Your task to perform on an android device: Turn off the flashlight Image 0: 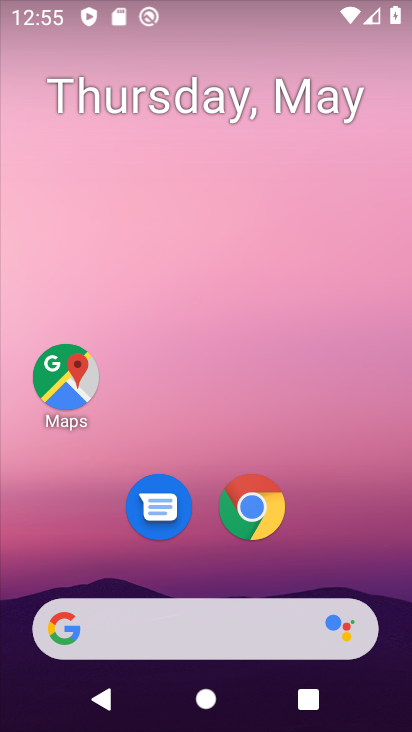
Step 0: drag from (57, 612) to (50, 78)
Your task to perform on an android device: Turn off the flashlight Image 1: 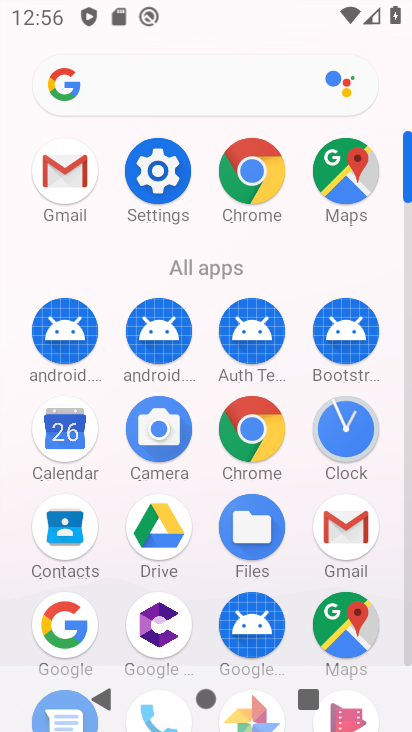
Step 1: click (171, 177)
Your task to perform on an android device: Turn off the flashlight Image 2: 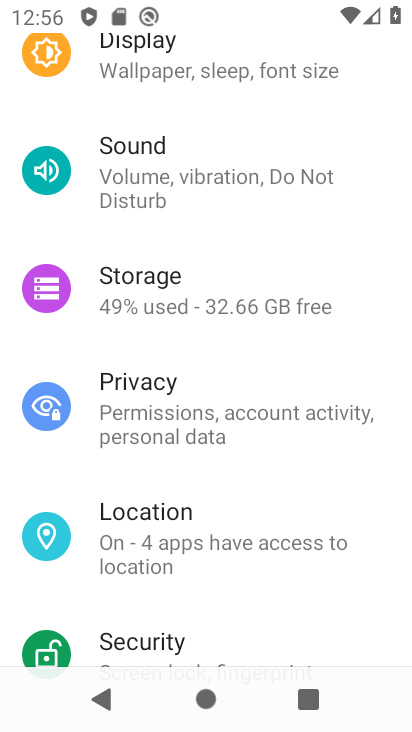
Step 2: task complete